Your task to perform on an android device: Open maps Image 0: 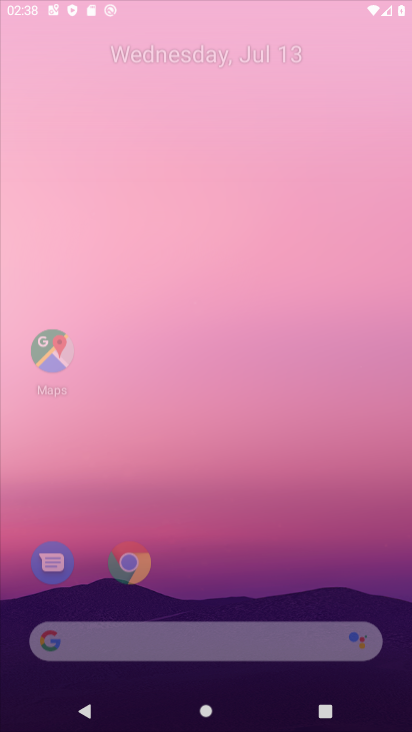
Step 0: click (126, 589)
Your task to perform on an android device: Open maps Image 1: 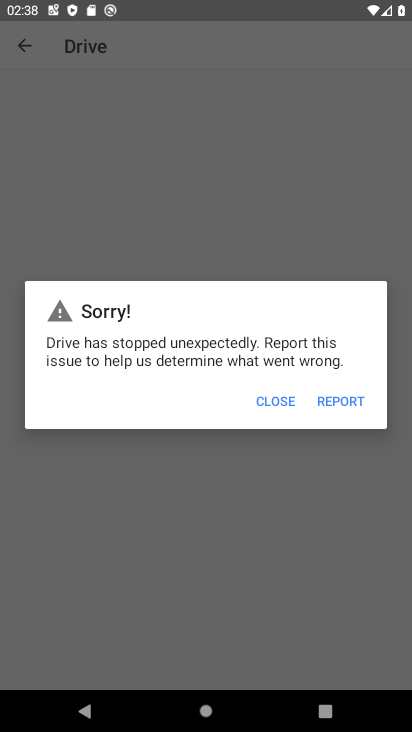
Step 1: press home button
Your task to perform on an android device: Open maps Image 2: 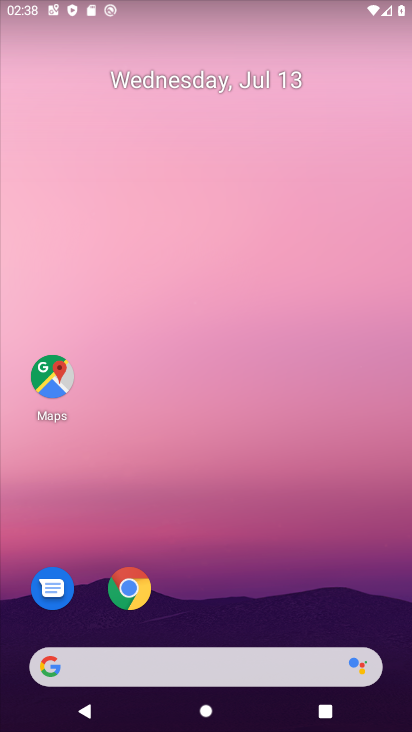
Step 2: click (50, 379)
Your task to perform on an android device: Open maps Image 3: 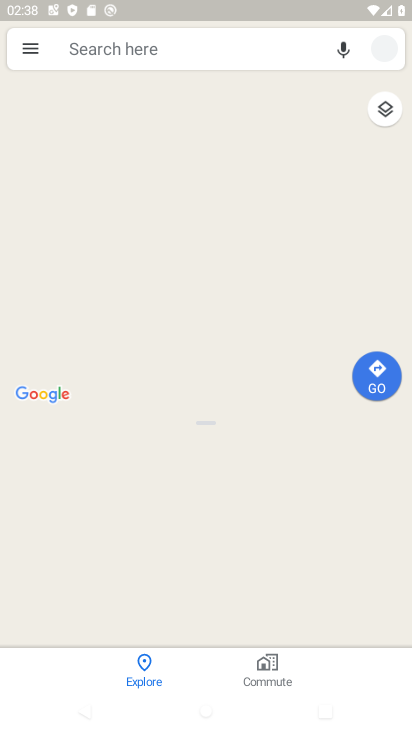
Step 3: task complete